Your task to perform on an android device: How do I get to the nearest grocery store? Image 0: 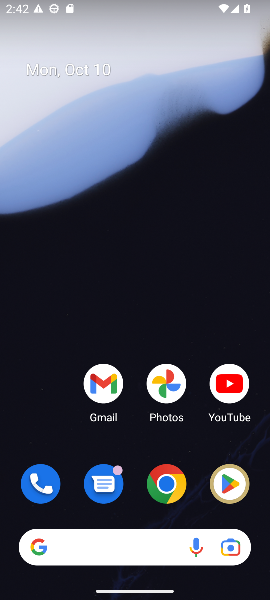
Step 0: click (171, 481)
Your task to perform on an android device: How do I get to the nearest grocery store? Image 1: 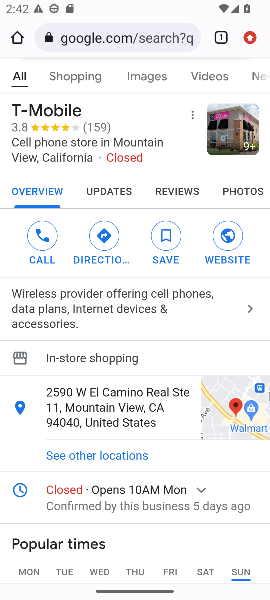
Step 1: click (112, 44)
Your task to perform on an android device: How do I get to the nearest grocery store? Image 2: 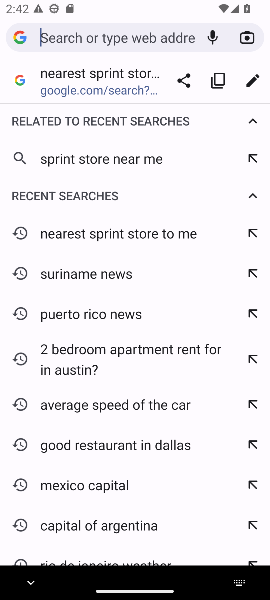
Step 2: type "directions to nearest grocery store"
Your task to perform on an android device: How do I get to the nearest grocery store? Image 3: 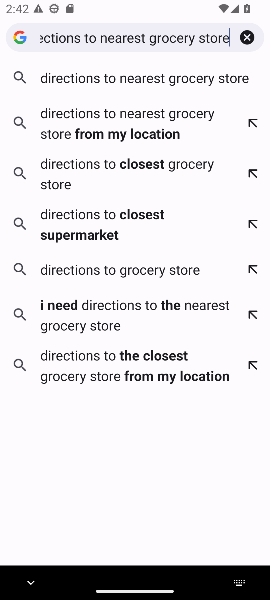
Step 3: click (158, 81)
Your task to perform on an android device: How do I get to the nearest grocery store? Image 4: 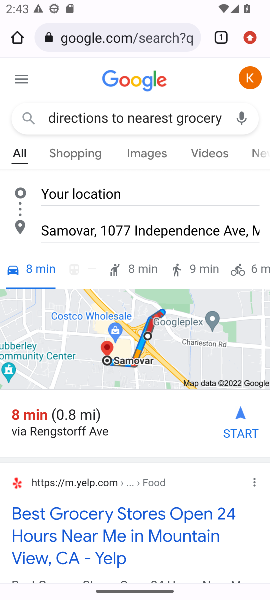
Step 4: click (238, 411)
Your task to perform on an android device: How do I get to the nearest grocery store? Image 5: 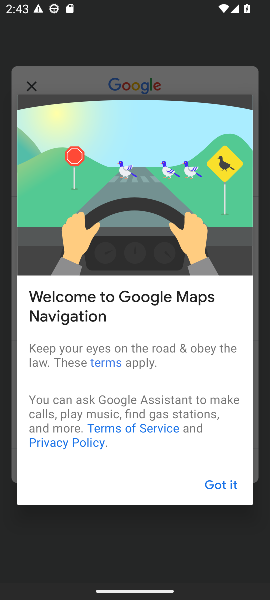
Step 5: click (217, 487)
Your task to perform on an android device: How do I get to the nearest grocery store? Image 6: 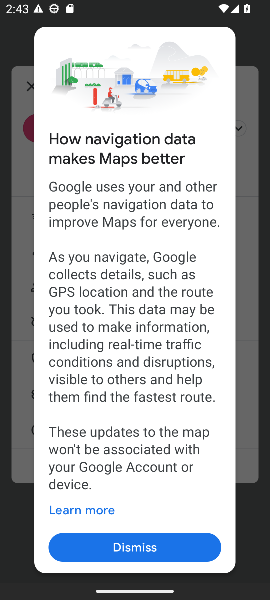
Step 6: click (151, 542)
Your task to perform on an android device: How do I get to the nearest grocery store? Image 7: 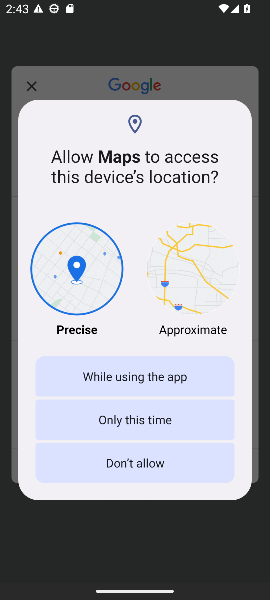
Step 7: click (125, 378)
Your task to perform on an android device: How do I get to the nearest grocery store? Image 8: 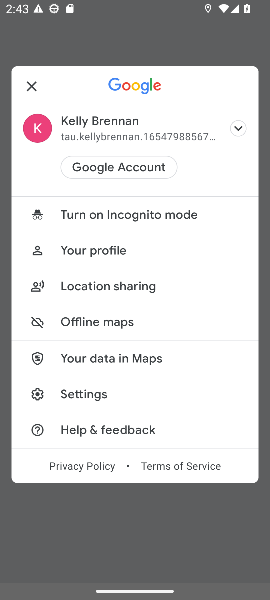
Step 8: click (32, 80)
Your task to perform on an android device: How do I get to the nearest grocery store? Image 9: 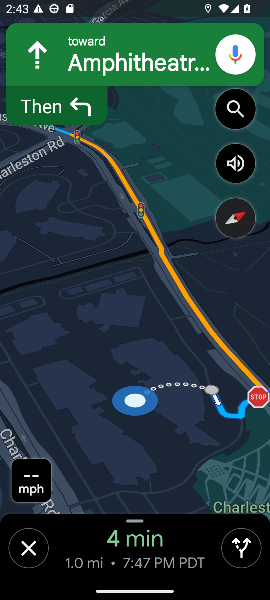
Step 9: task complete